Your task to perform on an android device: Open accessibility settings Image 0: 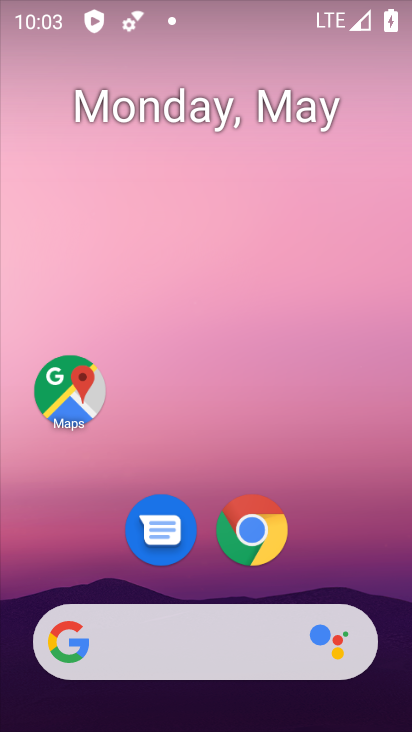
Step 0: drag from (270, 658) to (261, 192)
Your task to perform on an android device: Open accessibility settings Image 1: 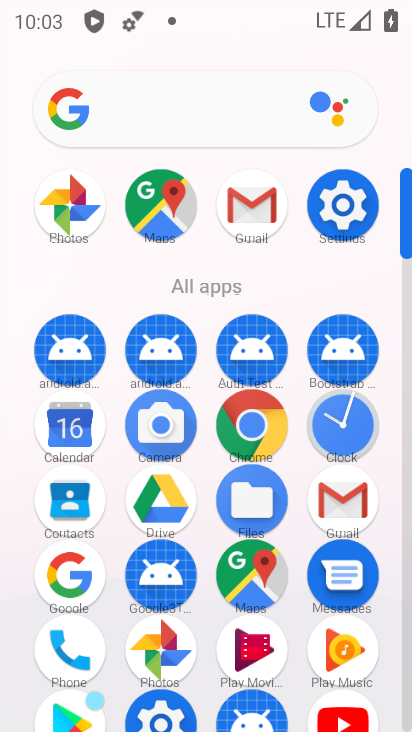
Step 1: click (342, 198)
Your task to perform on an android device: Open accessibility settings Image 2: 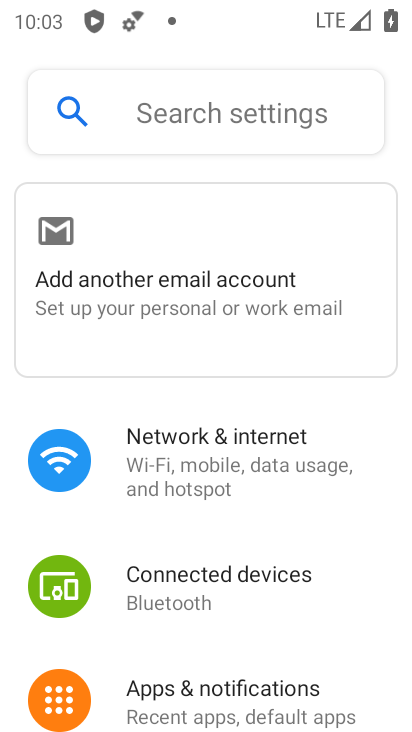
Step 2: click (181, 117)
Your task to perform on an android device: Open accessibility settings Image 3: 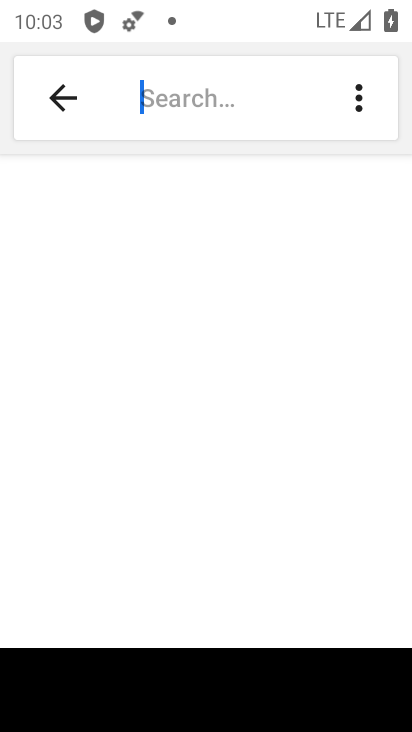
Step 3: drag from (352, 687) to (345, 574)
Your task to perform on an android device: Open accessibility settings Image 4: 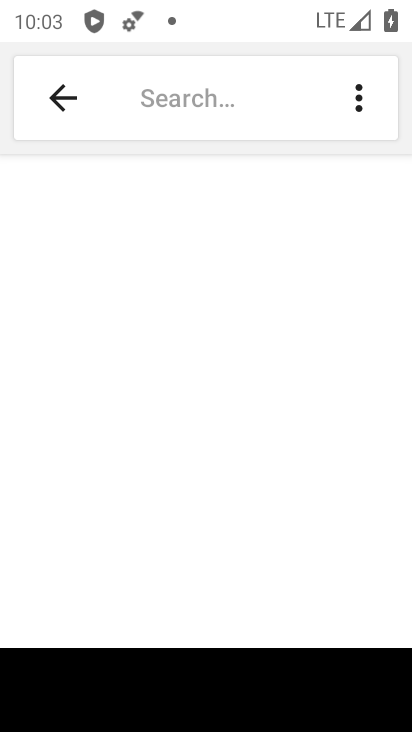
Step 4: drag from (390, 686) to (365, 616)
Your task to perform on an android device: Open accessibility settings Image 5: 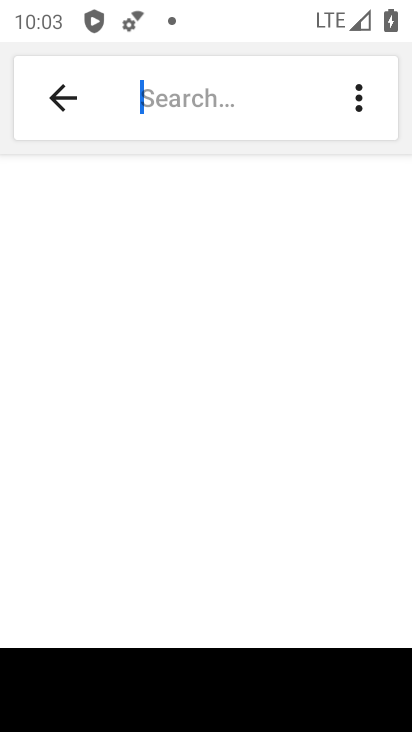
Step 5: drag from (375, 705) to (357, 617)
Your task to perform on an android device: Open accessibility settings Image 6: 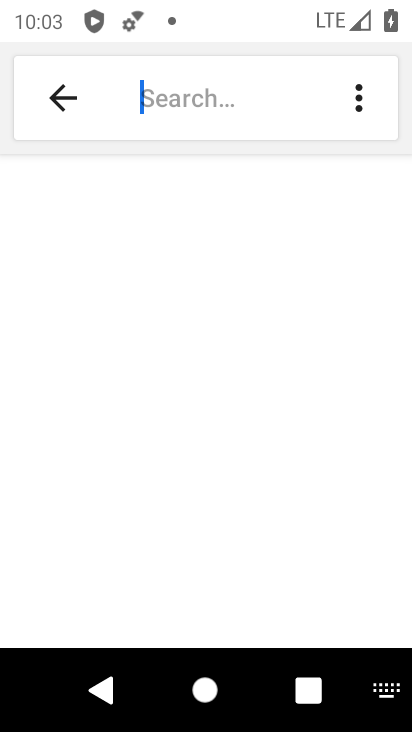
Step 6: click (377, 692)
Your task to perform on an android device: Open accessibility settings Image 7: 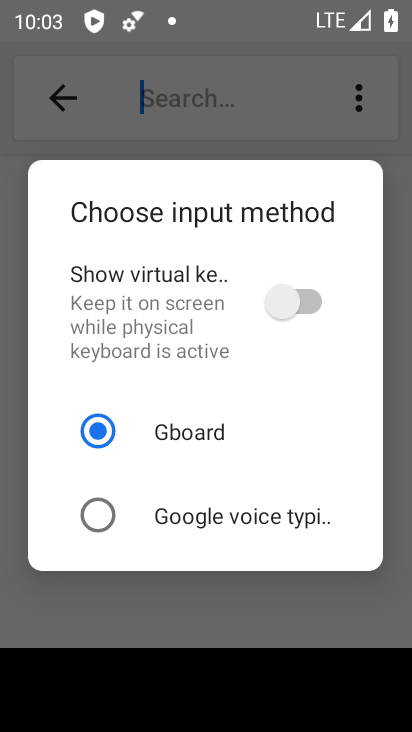
Step 7: click (302, 306)
Your task to perform on an android device: Open accessibility settings Image 8: 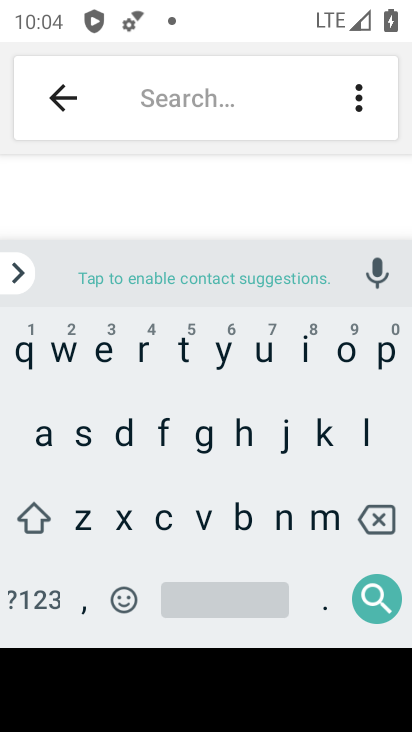
Step 8: click (42, 439)
Your task to perform on an android device: Open accessibility settings Image 9: 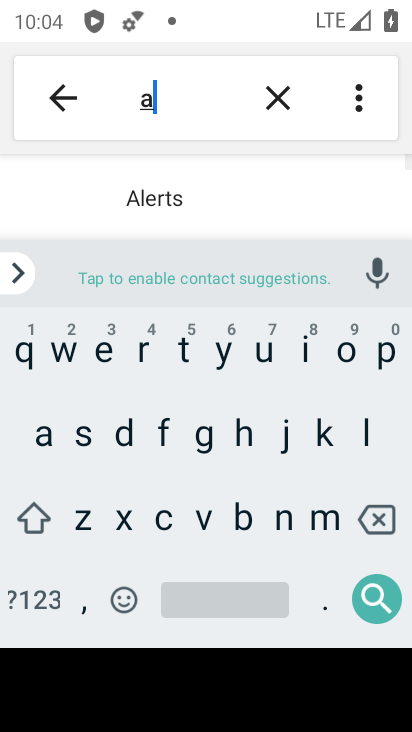
Step 9: click (156, 515)
Your task to perform on an android device: Open accessibility settings Image 10: 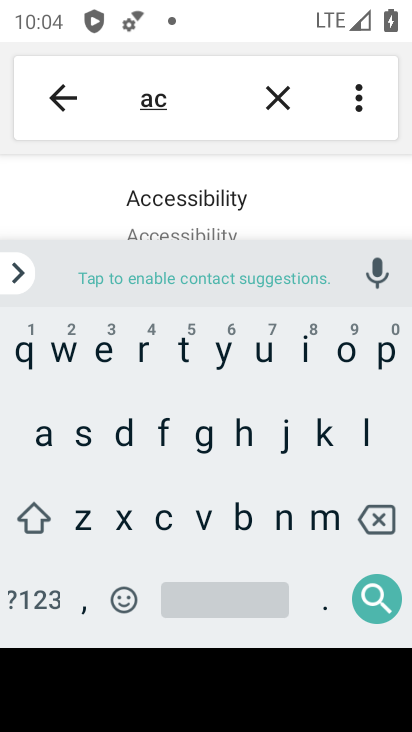
Step 10: click (163, 200)
Your task to perform on an android device: Open accessibility settings Image 11: 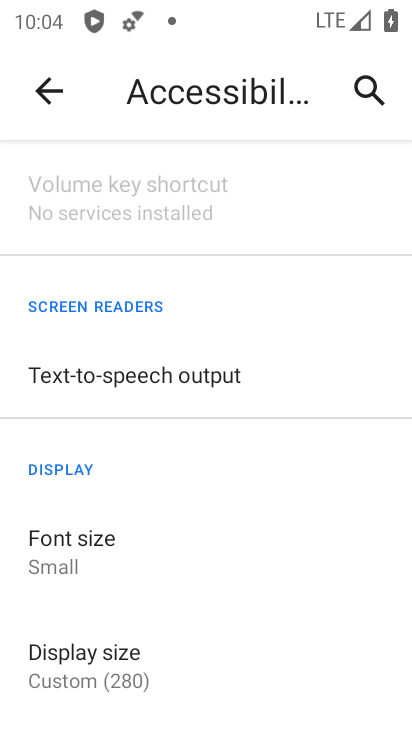
Step 11: task complete